Your task to perform on an android device: See recent photos Image 0: 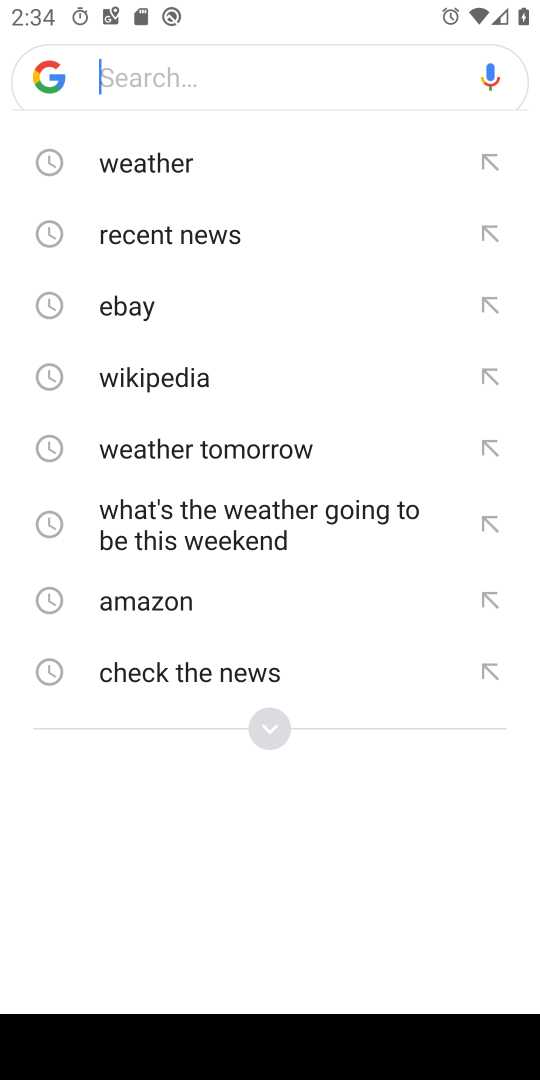
Step 0: press back button
Your task to perform on an android device: See recent photos Image 1: 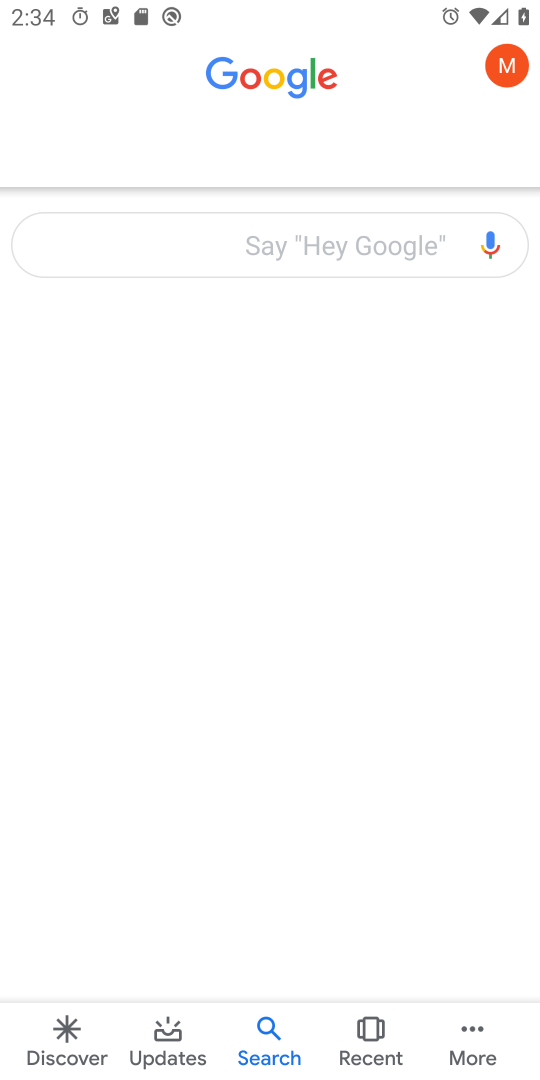
Step 1: press back button
Your task to perform on an android device: See recent photos Image 2: 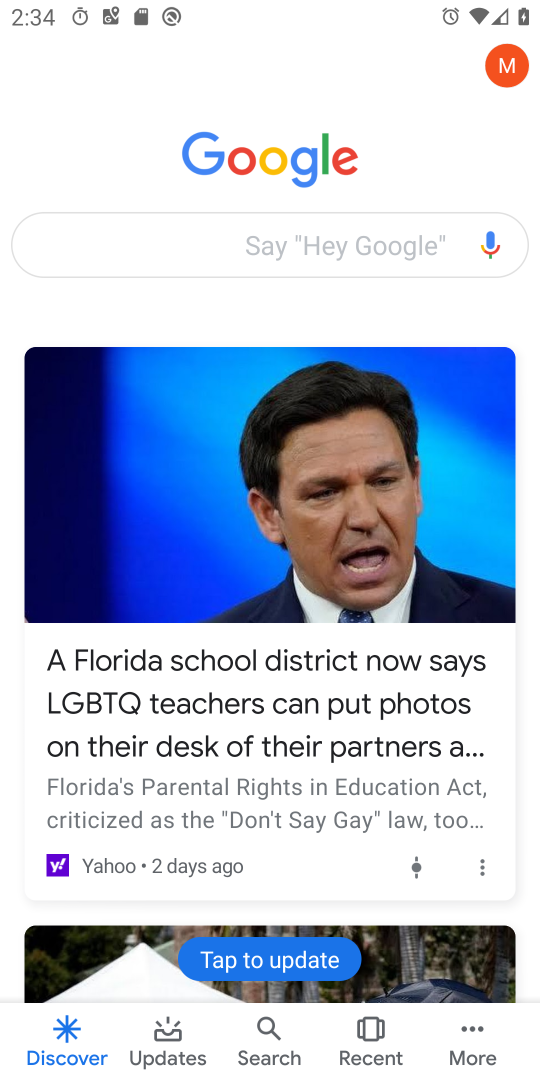
Step 2: press back button
Your task to perform on an android device: See recent photos Image 3: 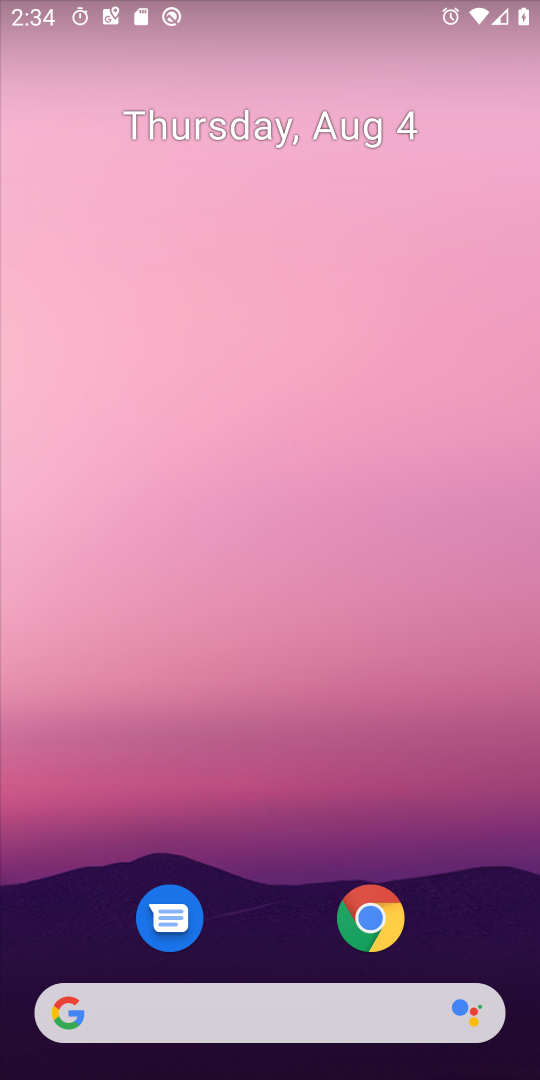
Step 3: drag from (284, 896) to (282, 273)
Your task to perform on an android device: See recent photos Image 4: 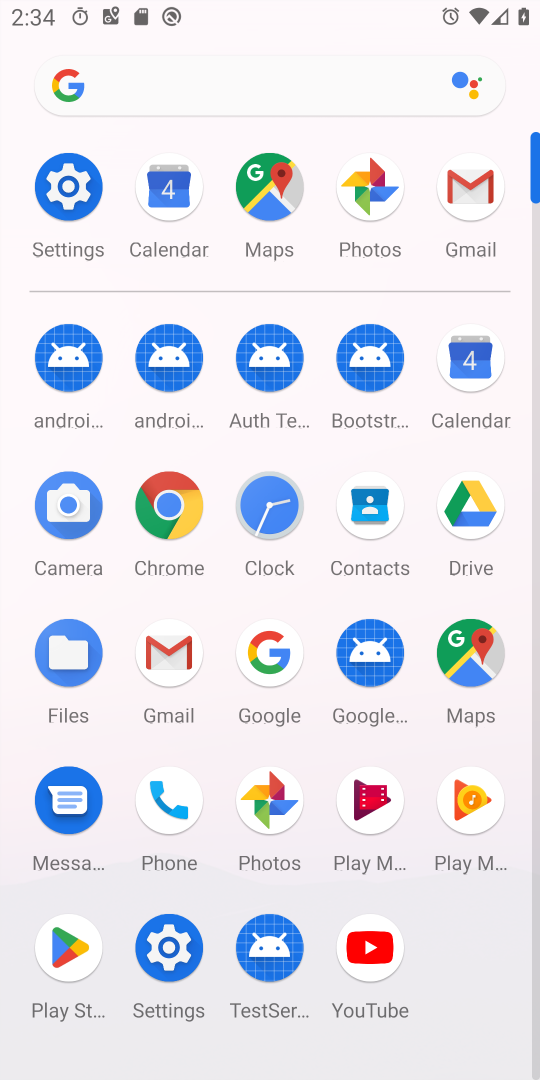
Step 4: click (345, 210)
Your task to perform on an android device: See recent photos Image 5: 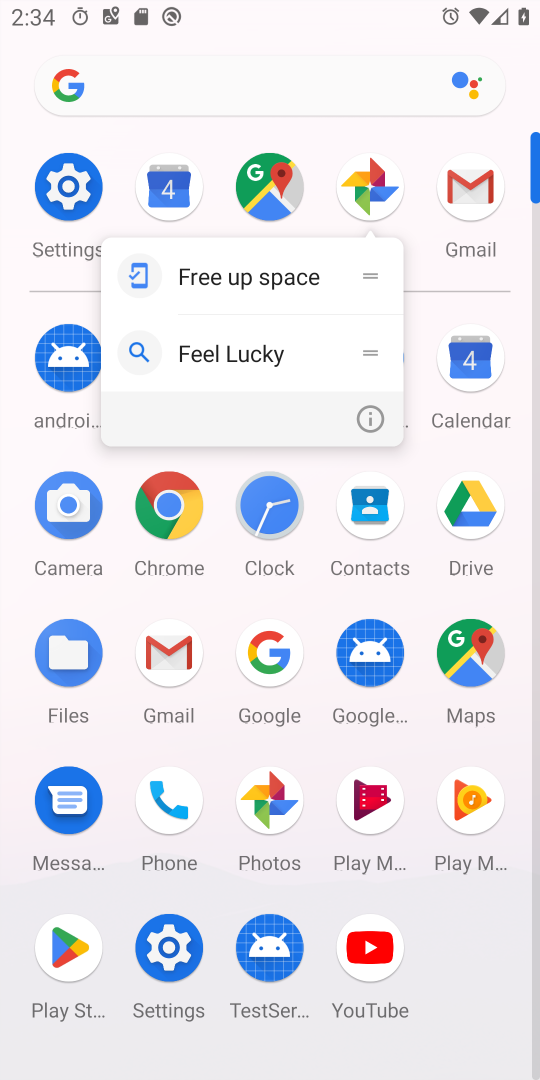
Step 5: click (366, 203)
Your task to perform on an android device: See recent photos Image 6: 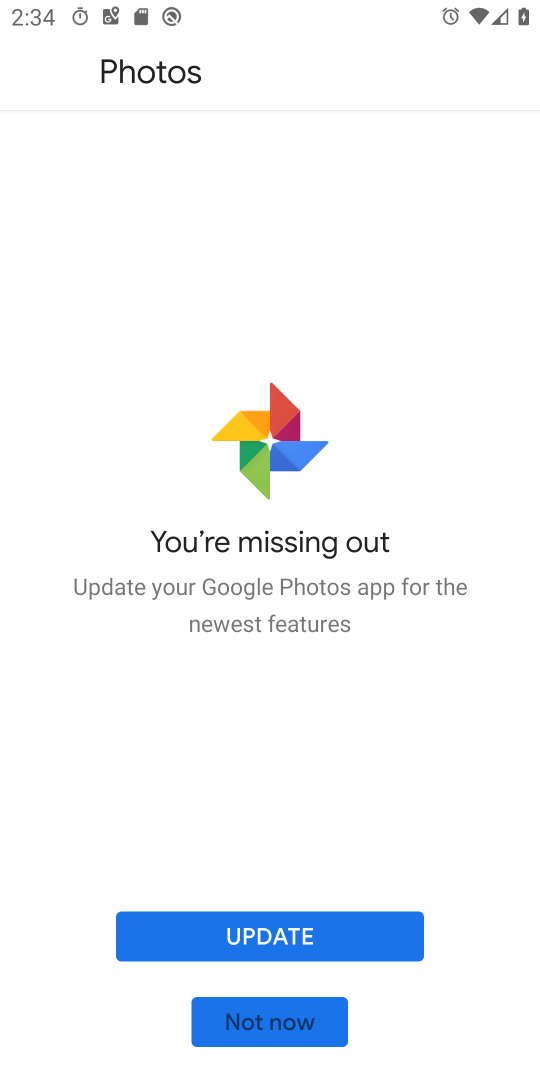
Step 6: click (278, 1013)
Your task to perform on an android device: See recent photos Image 7: 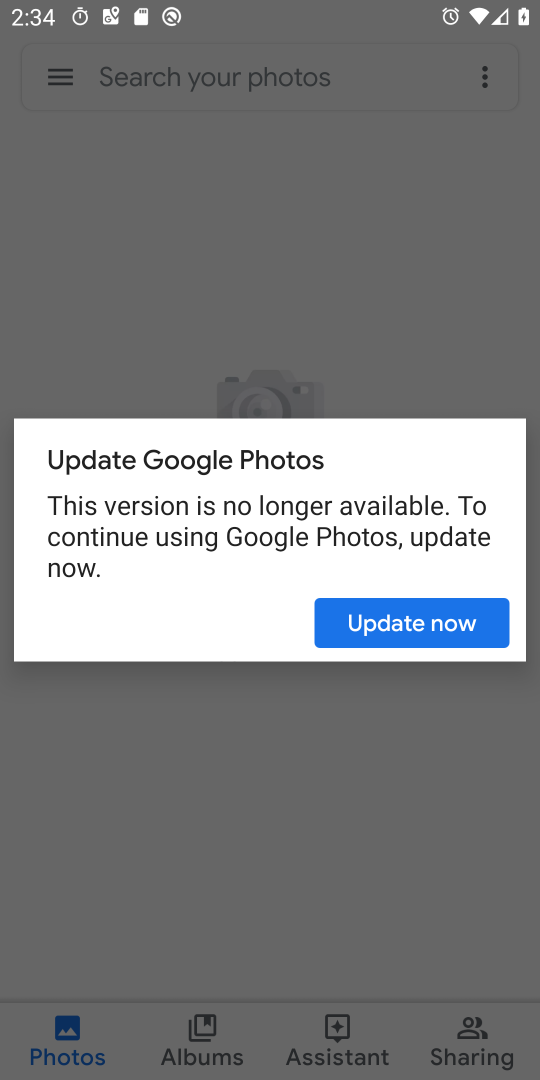
Step 7: click (395, 618)
Your task to perform on an android device: See recent photos Image 8: 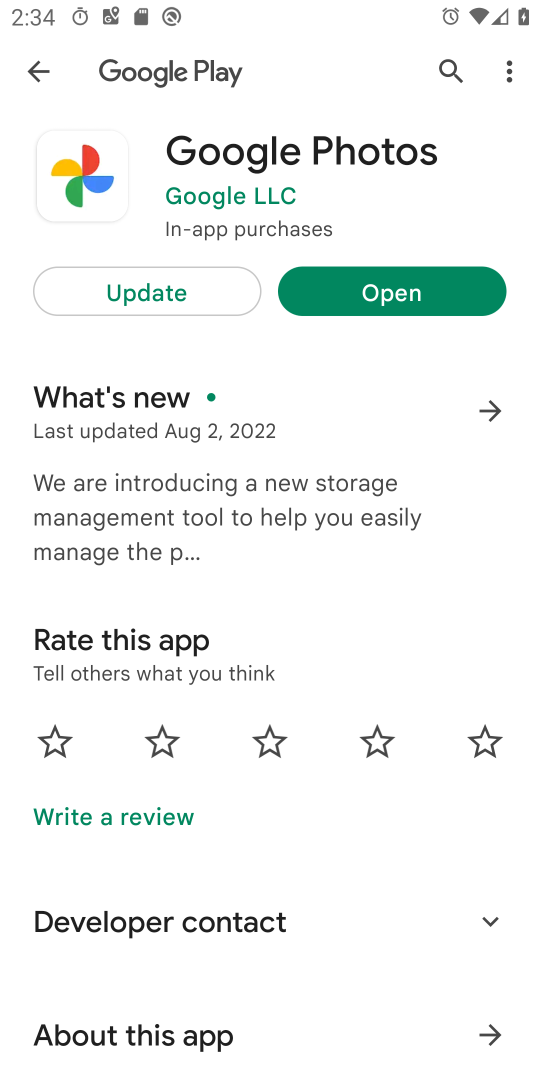
Step 8: click (374, 288)
Your task to perform on an android device: See recent photos Image 9: 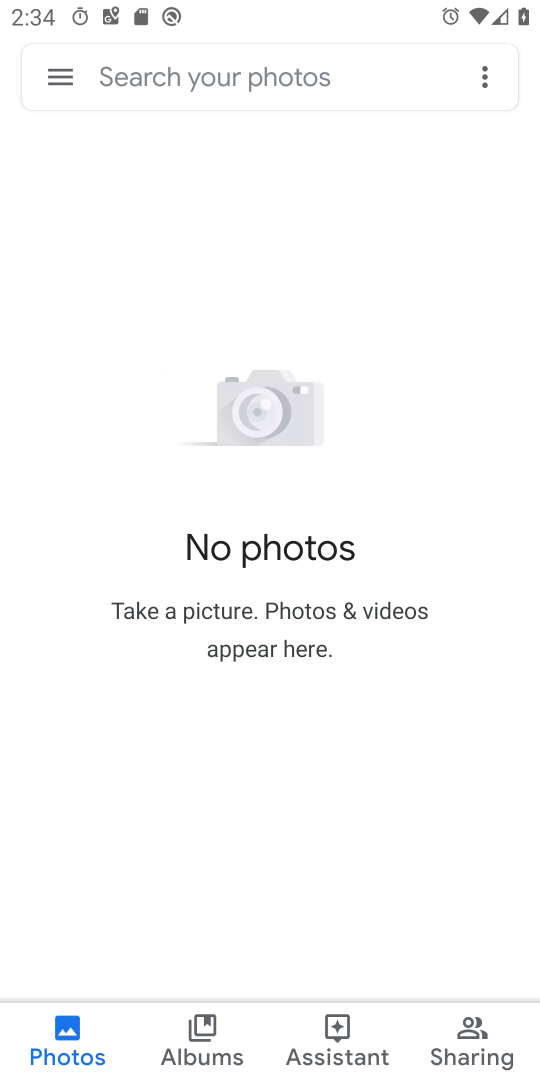
Step 9: task complete